Your task to perform on an android device: Show me popular videos on Youtube Image 0: 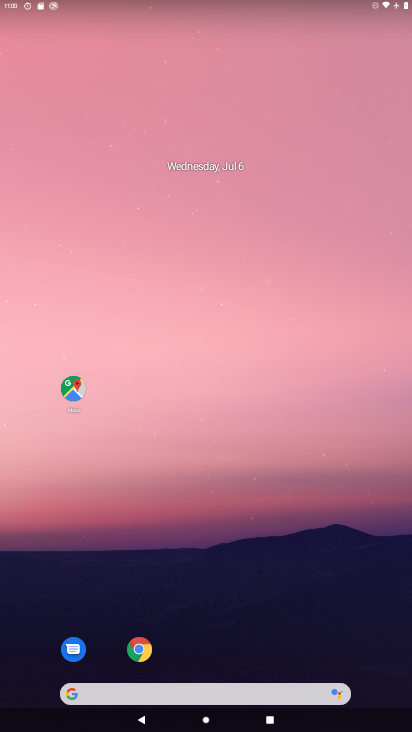
Step 0: drag from (385, 709) to (372, 222)
Your task to perform on an android device: Show me popular videos on Youtube Image 1: 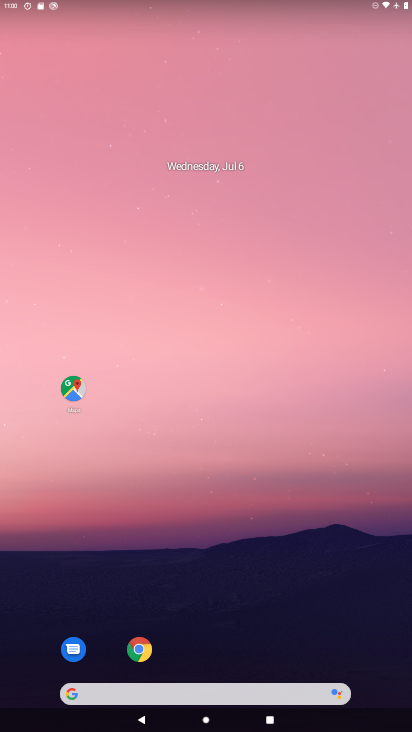
Step 1: drag from (397, 716) to (306, 34)
Your task to perform on an android device: Show me popular videos on Youtube Image 2: 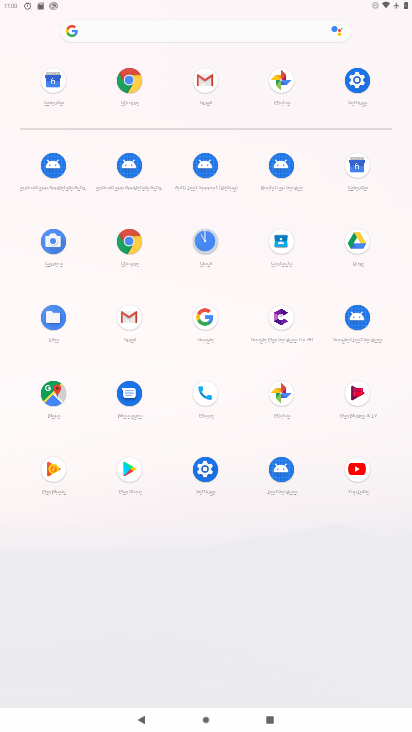
Step 2: click (351, 464)
Your task to perform on an android device: Show me popular videos on Youtube Image 3: 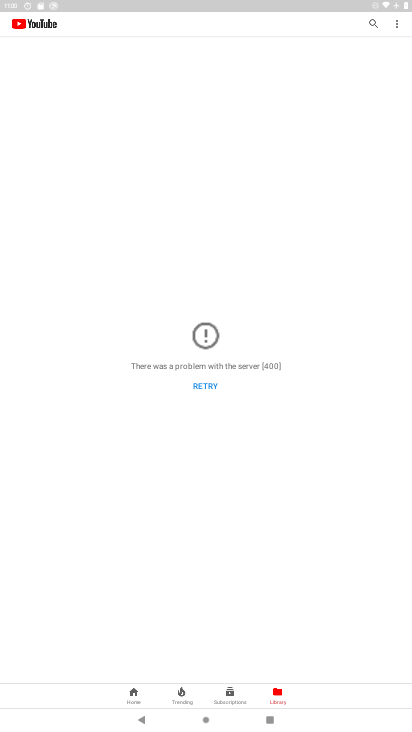
Step 3: click (278, 698)
Your task to perform on an android device: Show me popular videos on Youtube Image 4: 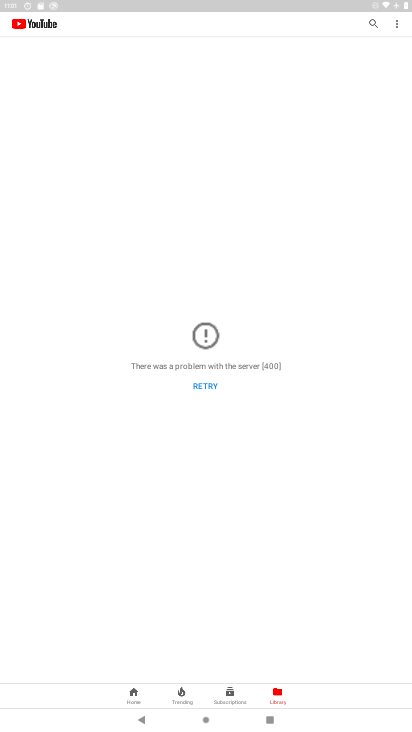
Step 4: click (278, 691)
Your task to perform on an android device: Show me popular videos on Youtube Image 5: 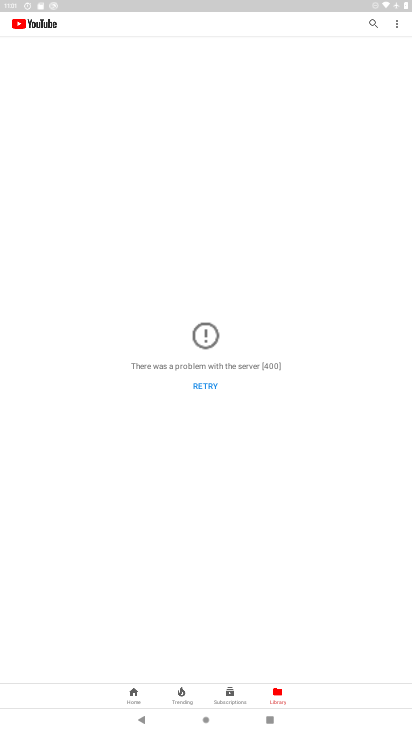
Step 5: task complete